Your task to perform on an android device: find snoozed emails in the gmail app Image 0: 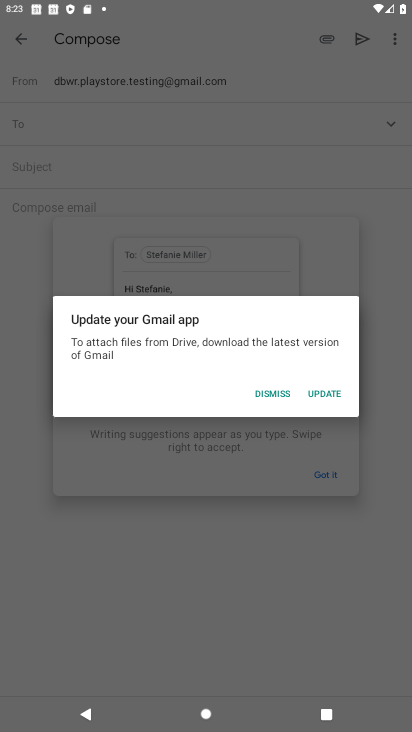
Step 0: press back button
Your task to perform on an android device: find snoozed emails in the gmail app Image 1: 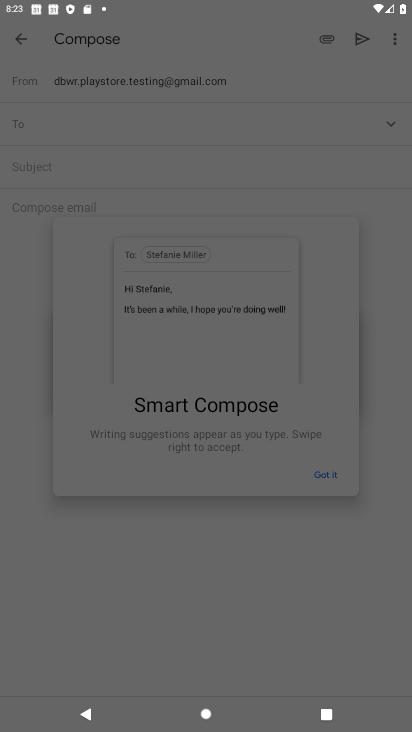
Step 1: press home button
Your task to perform on an android device: find snoozed emails in the gmail app Image 2: 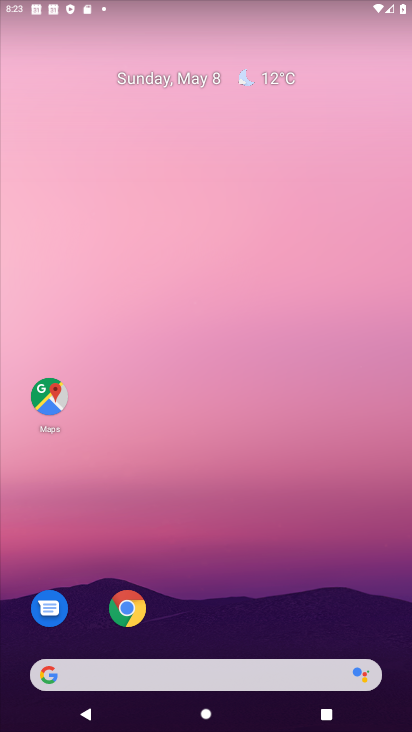
Step 2: drag from (311, 550) to (257, 10)
Your task to perform on an android device: find snoozed emails in the gmail app Image 3: 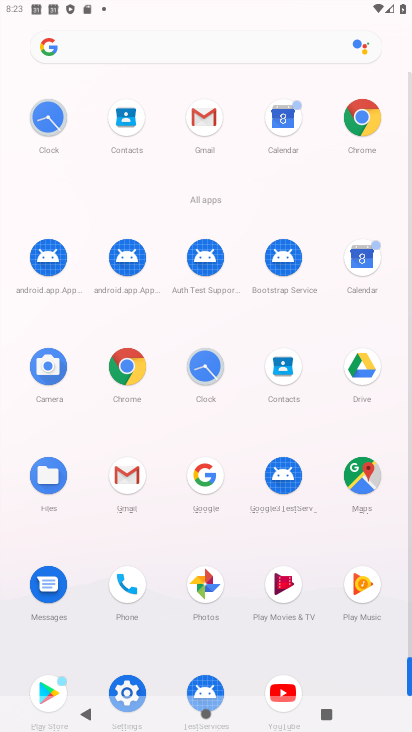
Step 3: drag from (11, 570) to (9, 237)
Your task to perform on an android device: find snoozed emails in the gmail app Image 4: 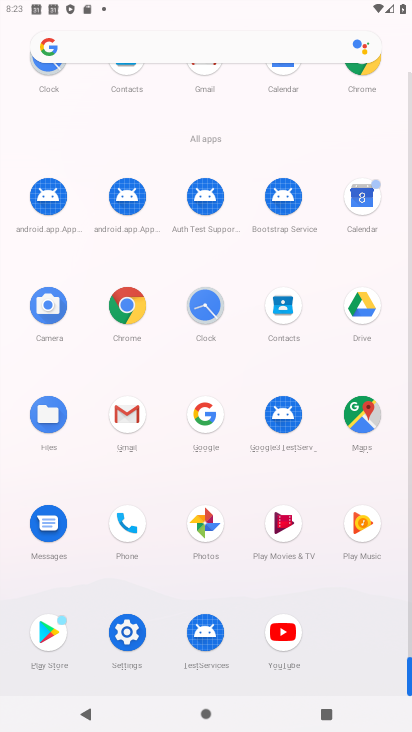
Step 4: click (122, 411)
Your task to perform on an android device: find snoozed emails in the gmail app Image 5: 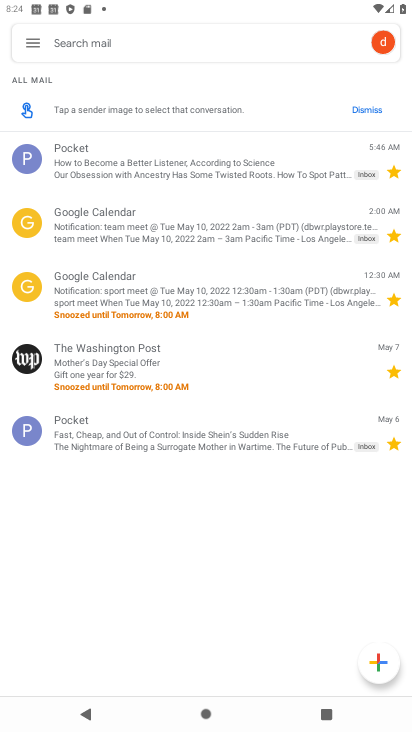
Step 5: click (30, 50)
Your task to perform on an android device: find snoozed emails in the gmail app Image 6: 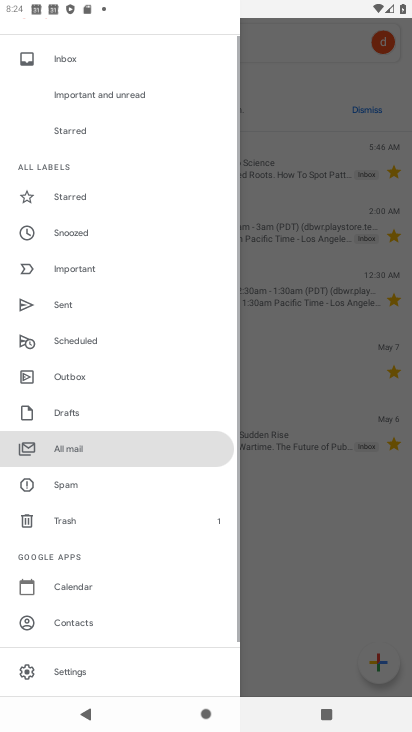
Step 6: drag from (138, 566) to (124, 113)
Your task to perform on an android device: find snoozed emails in the gmail app Image 7: 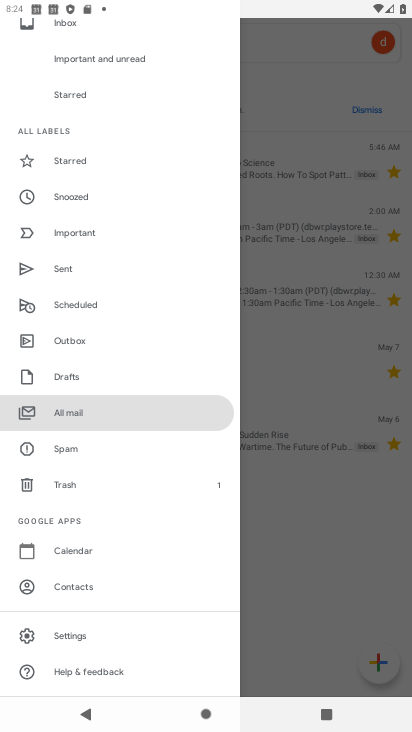
Step 7: click (88, 194)
Your task to perform on an android device: find snoozed emails in the gmail app Image 8: 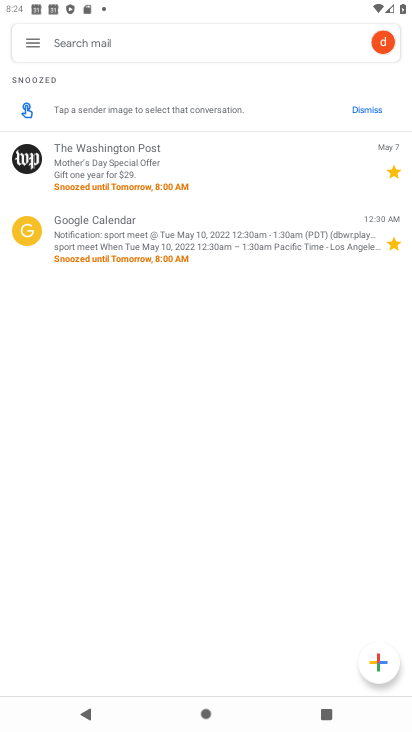
Step 8: task complete